Your task to perform on an android device: Clear all items from cart on newegg. Add dell alienware to the cart on newegg Image 0: 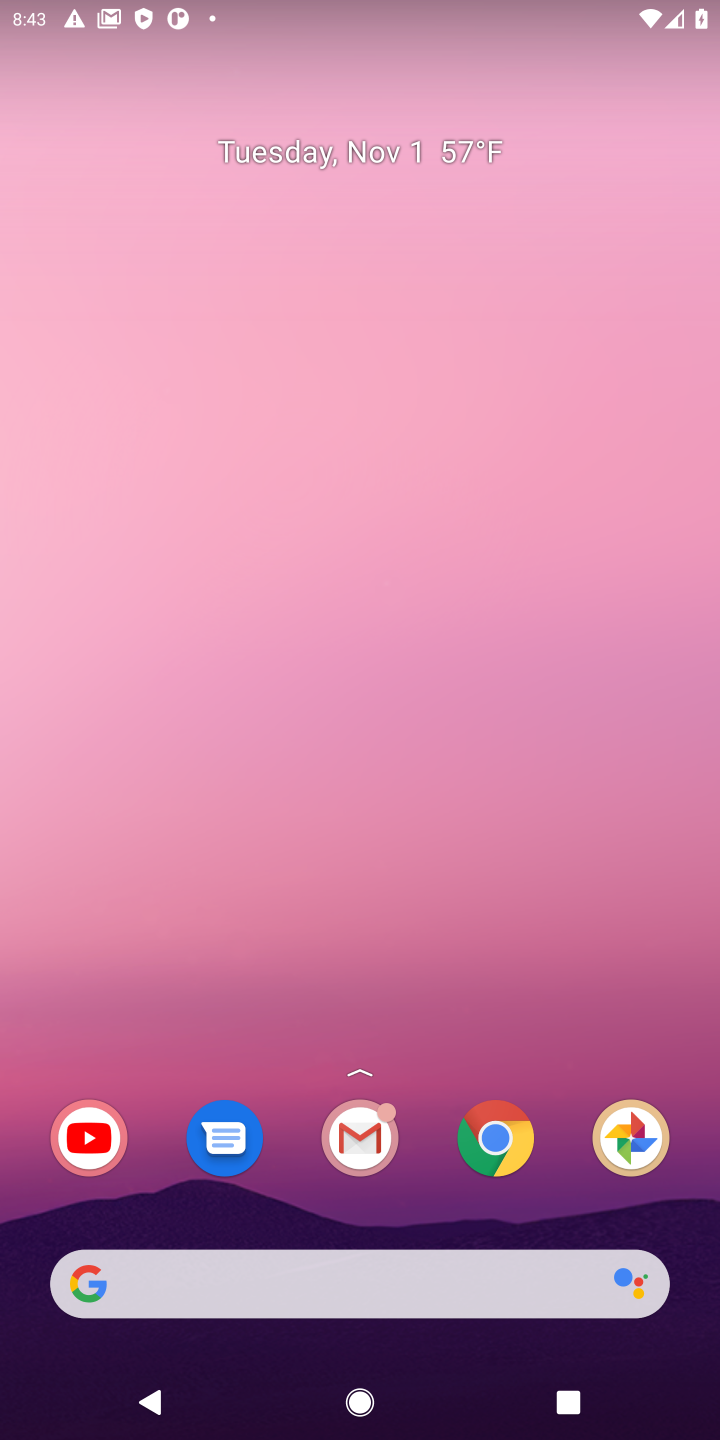
Step 0: click (498, 1152)
Your task to perform on an android device: Clear all items from cart on newegg. Add dell alienware to the cart on newegg Image 1: 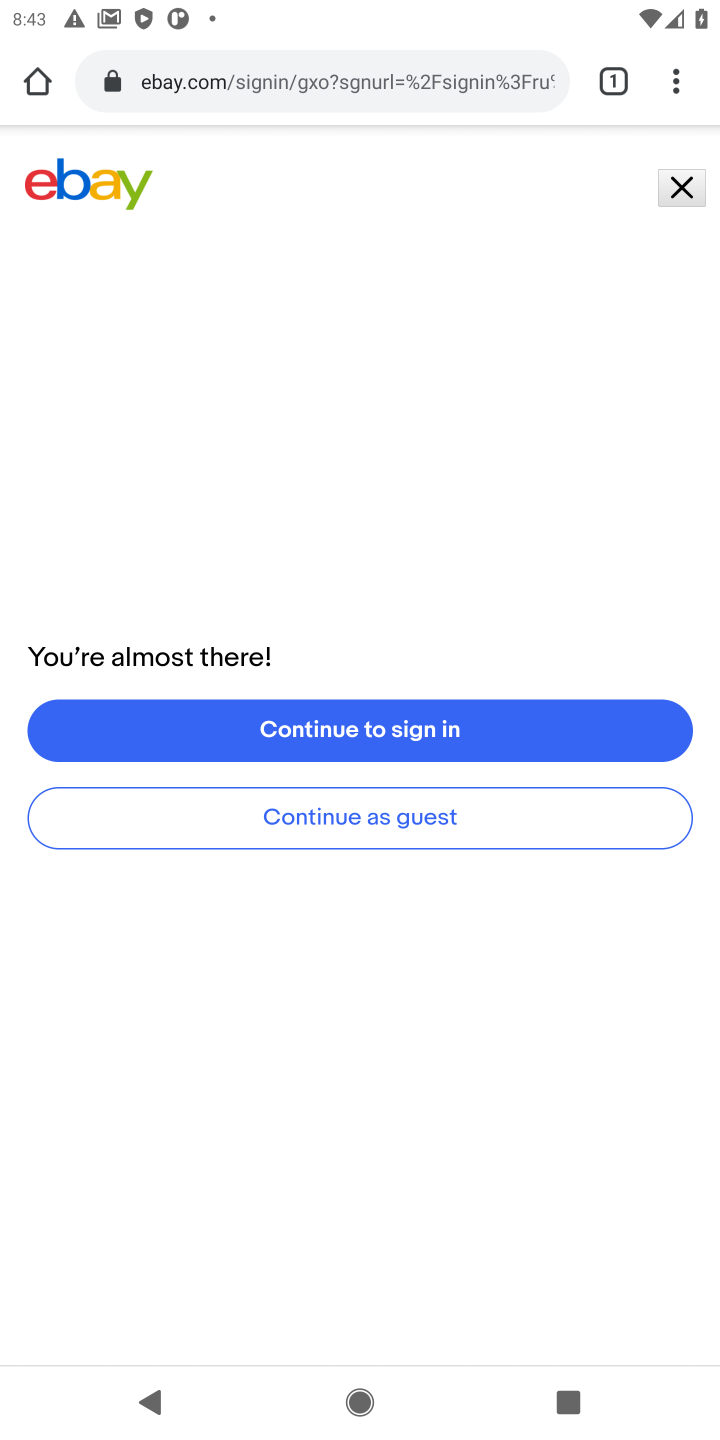
Step 1: click (222, 90)
Your task to perform on an android device: Clear all items from cart on newegg. Add dell alienware to the cart on newegg Image 2: 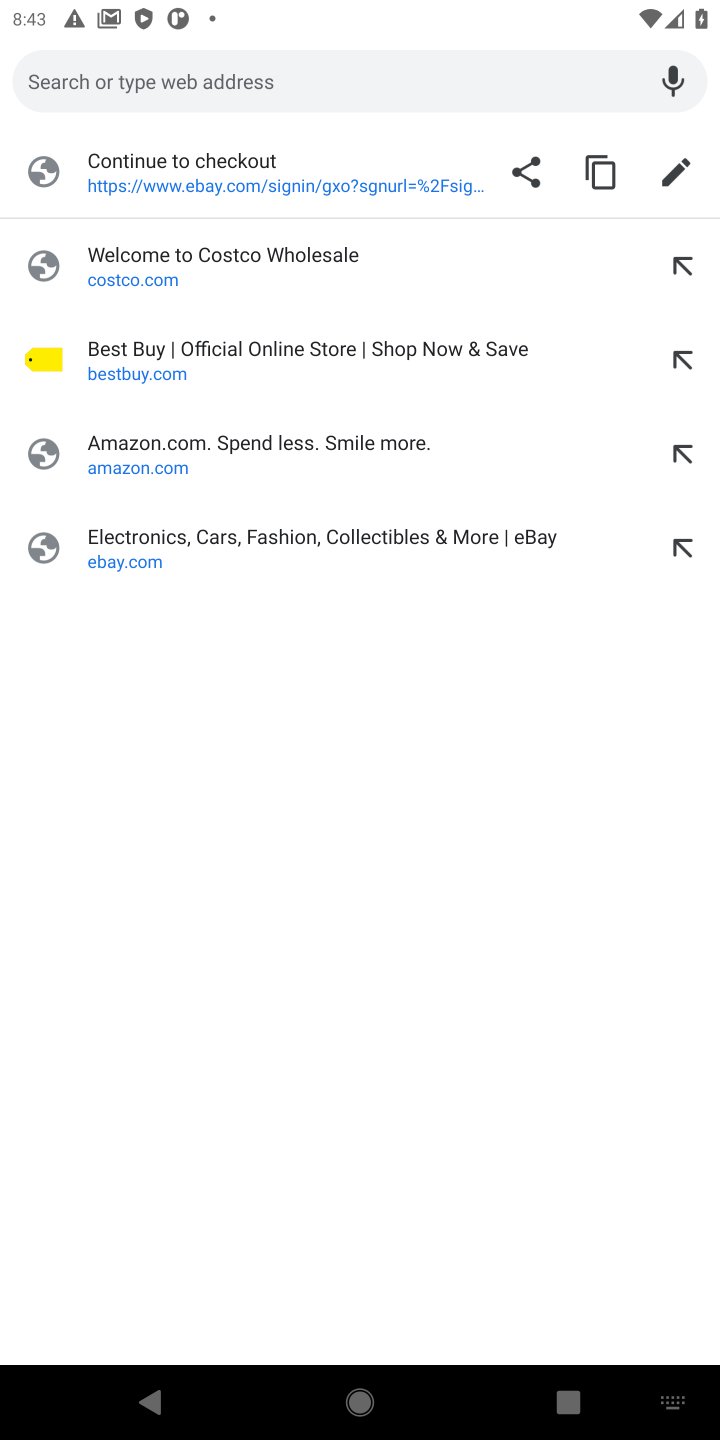
Step 2: type "newegg.com"
Your task to perform on an android device: Clear all items from cart on newegg. Add dell alienware to the cart on newegg Image 3: 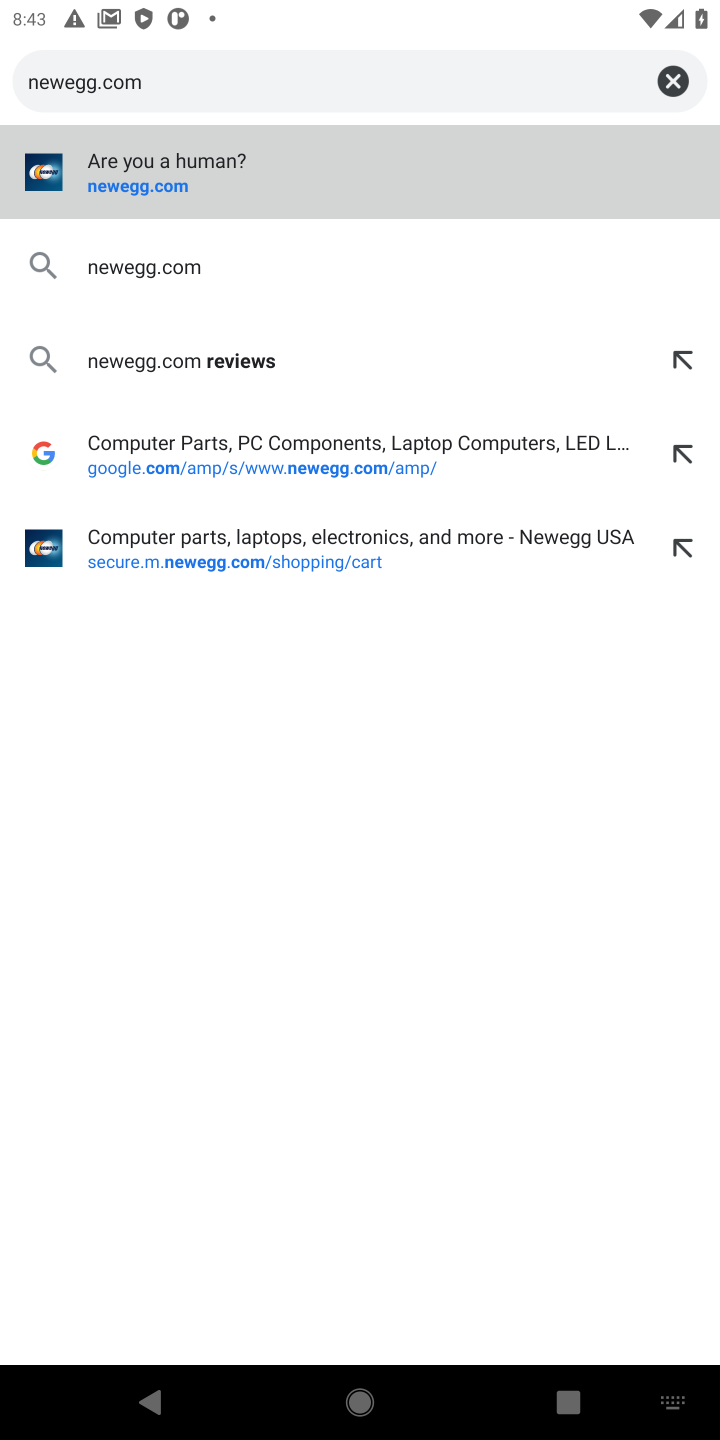
Step 3: click (113, 280)
Your task to perform on an android device: Clear all items from cart on newegg. Add dell alienware to the cart on newegg Image 4: 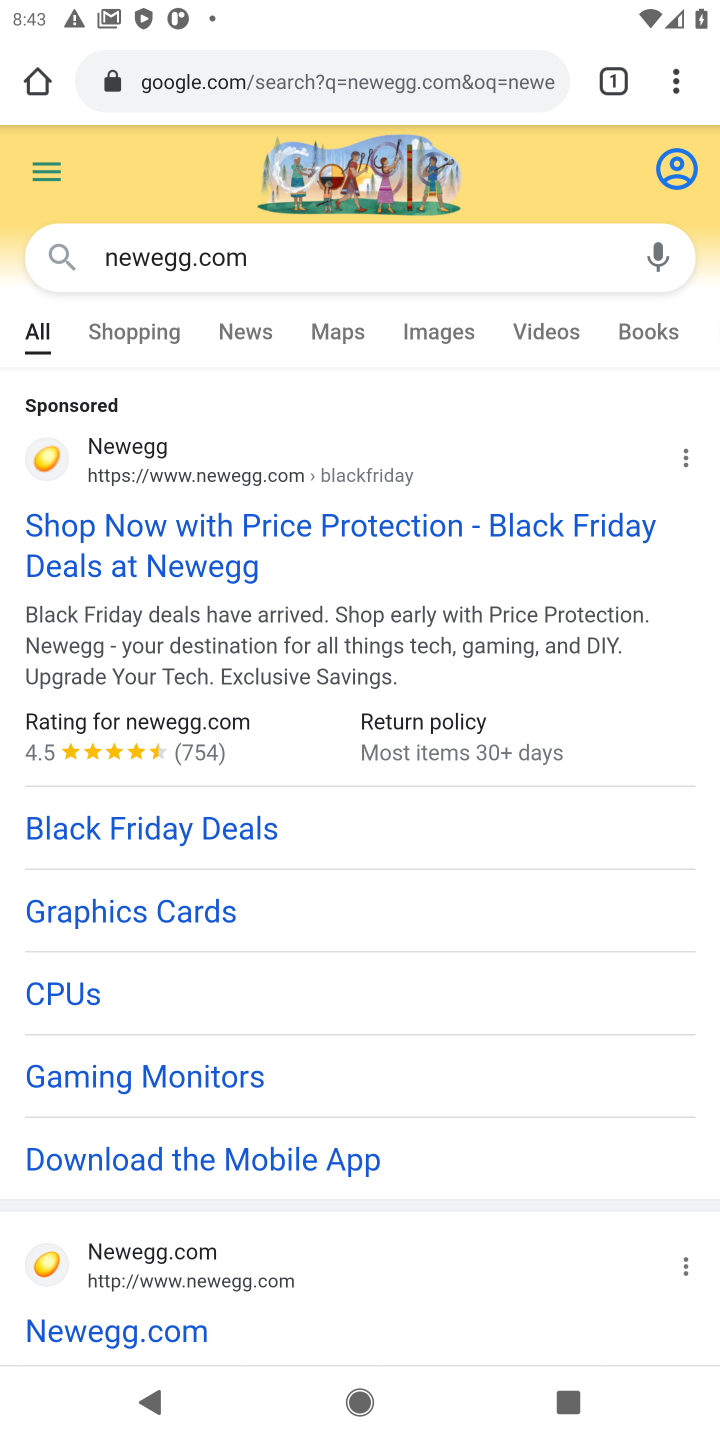
Step 4: drag from (243, 582) to (243, 436)
Your task to perform on an android device: Clear all items from cart on newegg. Add dell alienware to the cart on newegg Image 5: 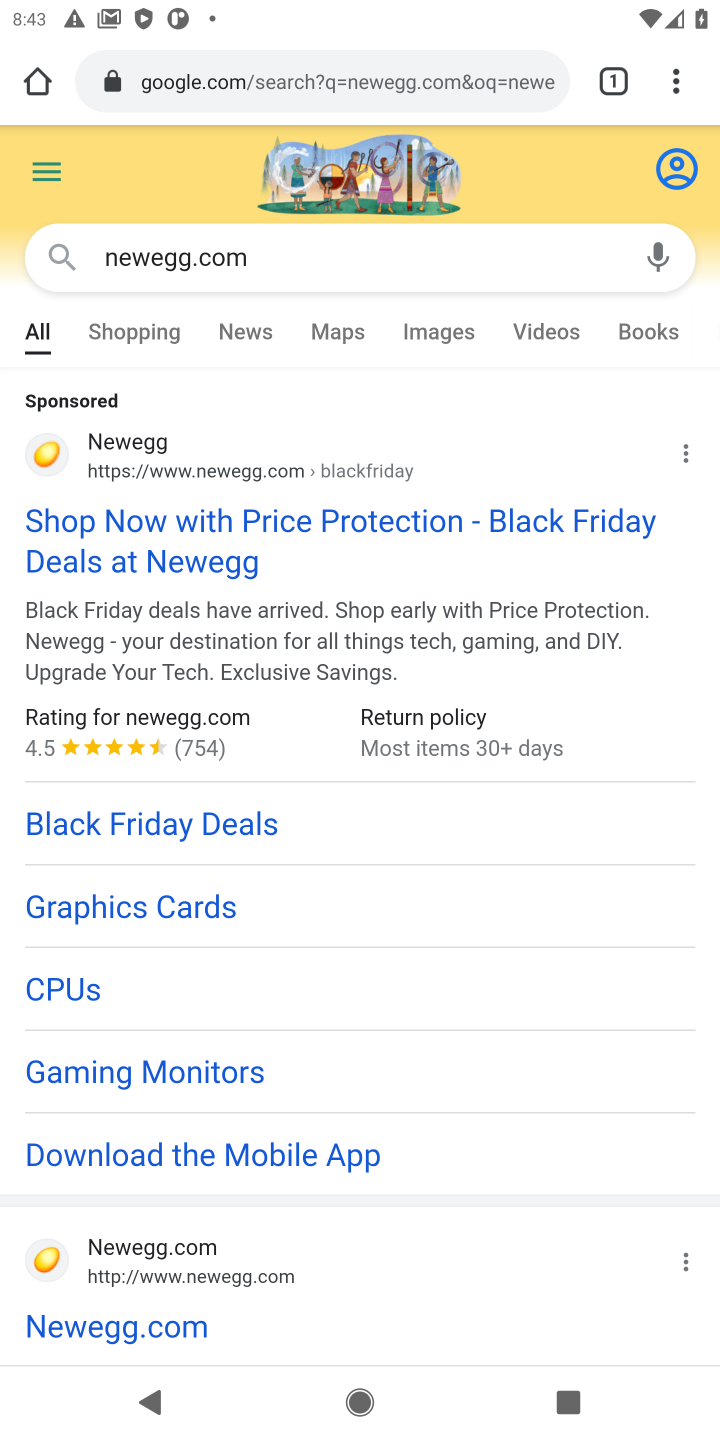
Step 5: drag from (326, 1236) to (367, 569)
Your task to perform on an android device: Clear all items from cart on newegg. Add dell alienware to the cart on newegg Image 6: 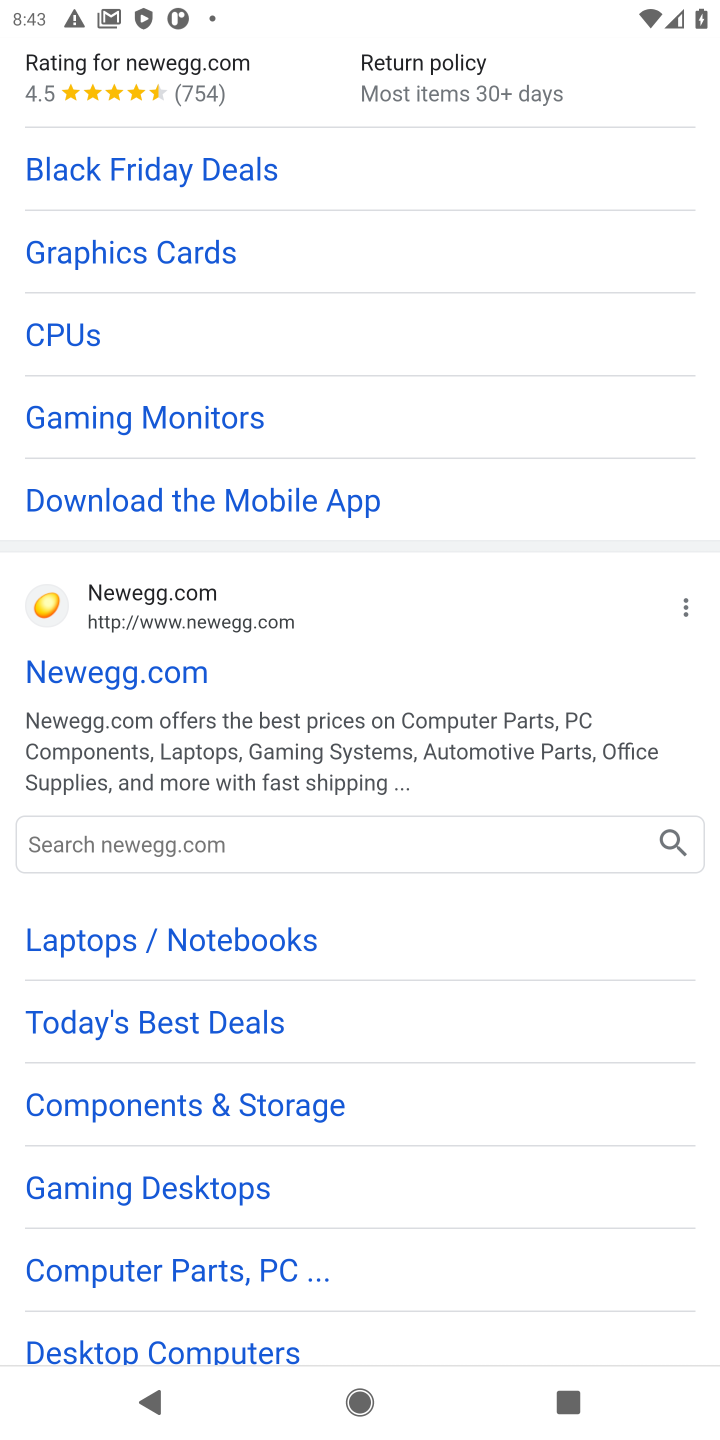
Step 6: click (84, 814)
Your task to perform on an android device: Clear all items from cart on newegg. Add dell alienware to the cart on newegg Image 7: 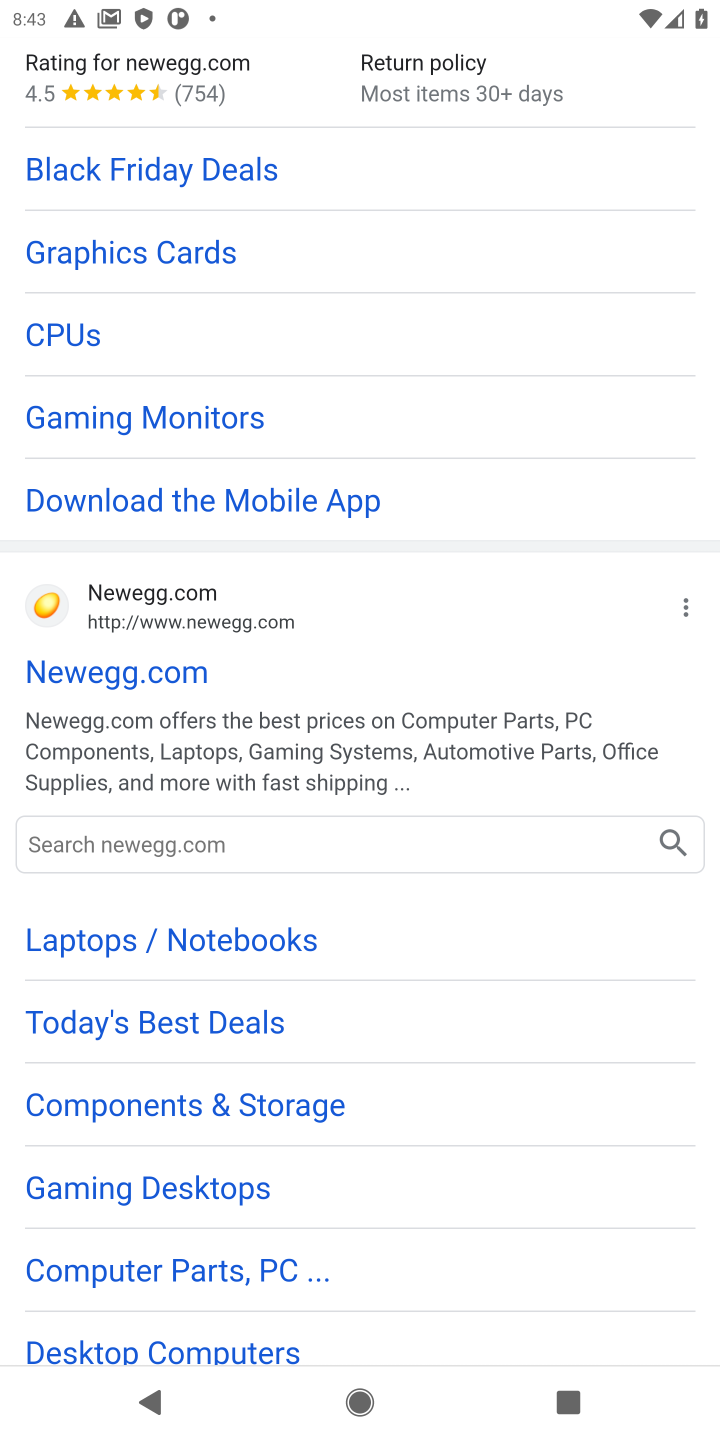
Step 7: click (124, 641)
Your task to perform on an android device: Clear all items from cart on newegg. Add dell alienware to the cart on newegg Image 8: 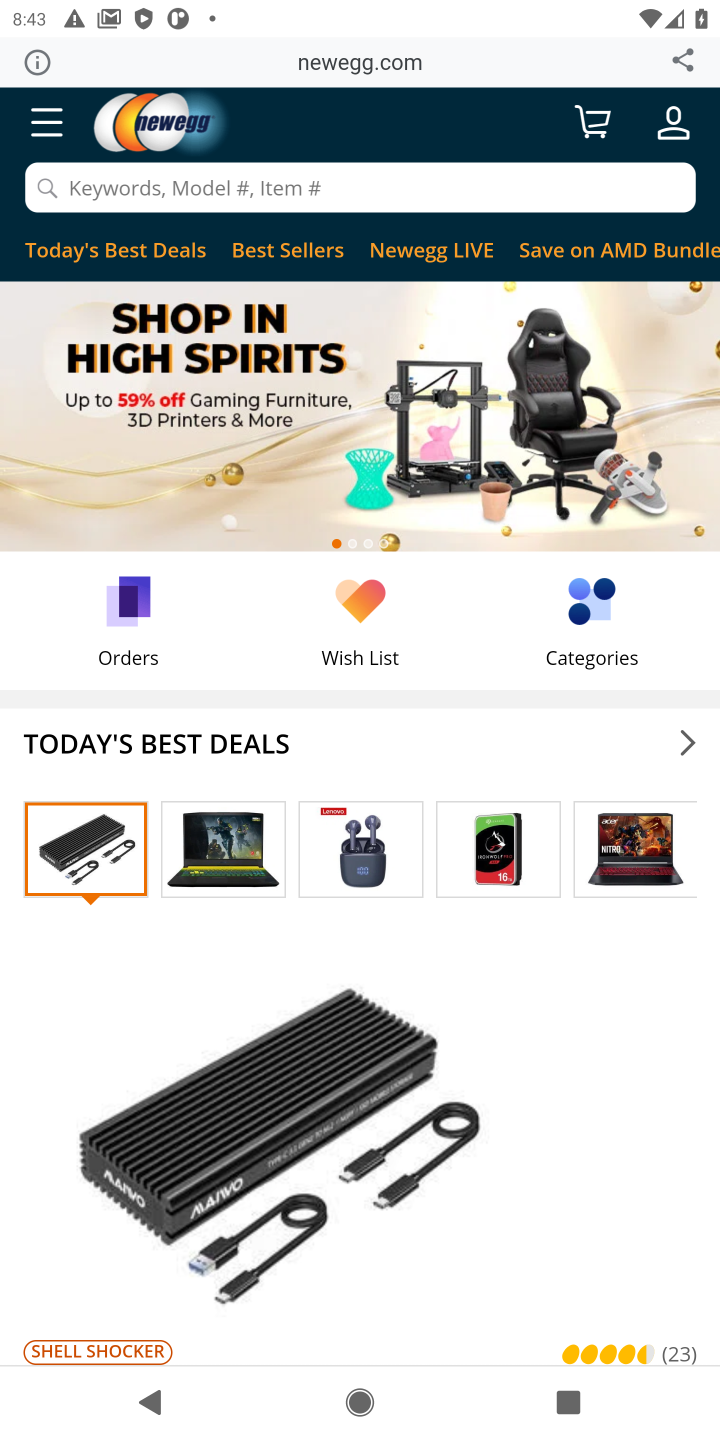
Step 8: click (601, 132)
Your task to perform on an android device: Clear all items from cart on newegg. Add dell alienware to the cart on newegg Image 9: 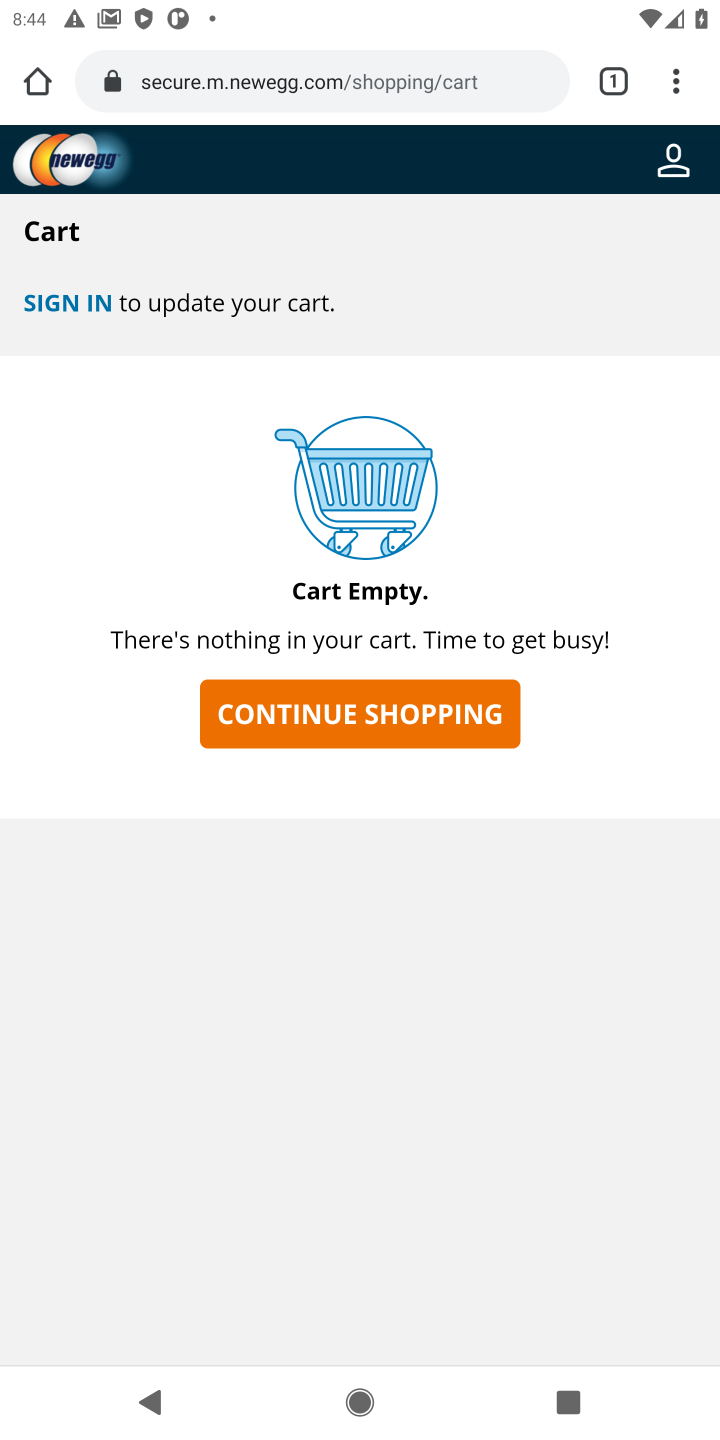
Step 9: press back button
Your task to perform on an android device: Clear all items from cart on newegg. Add dell alienware to the cart on newegg Image 10: 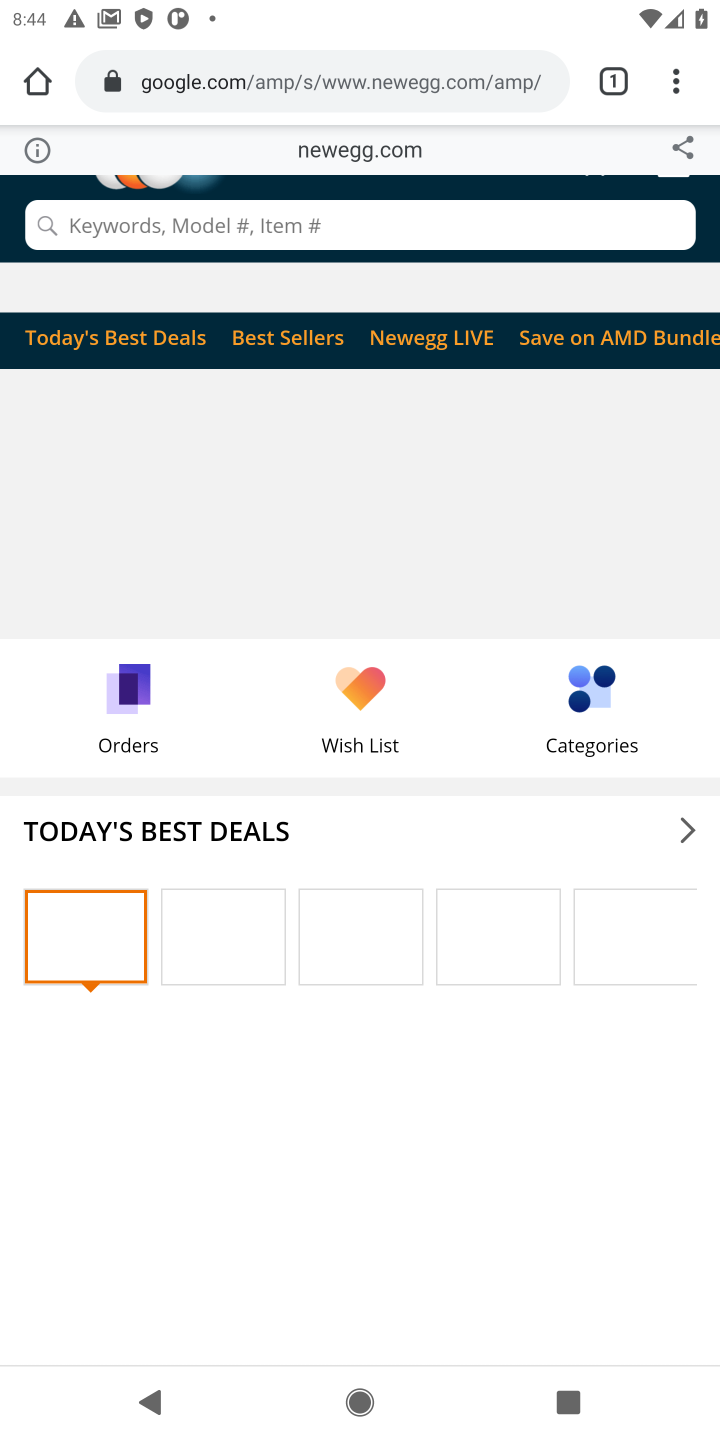
Step 10: click (279, 227)
Your task to perform on an android device: Clear all items from cart on newegg. Add dell alienware to the cart on newegg Image 11: 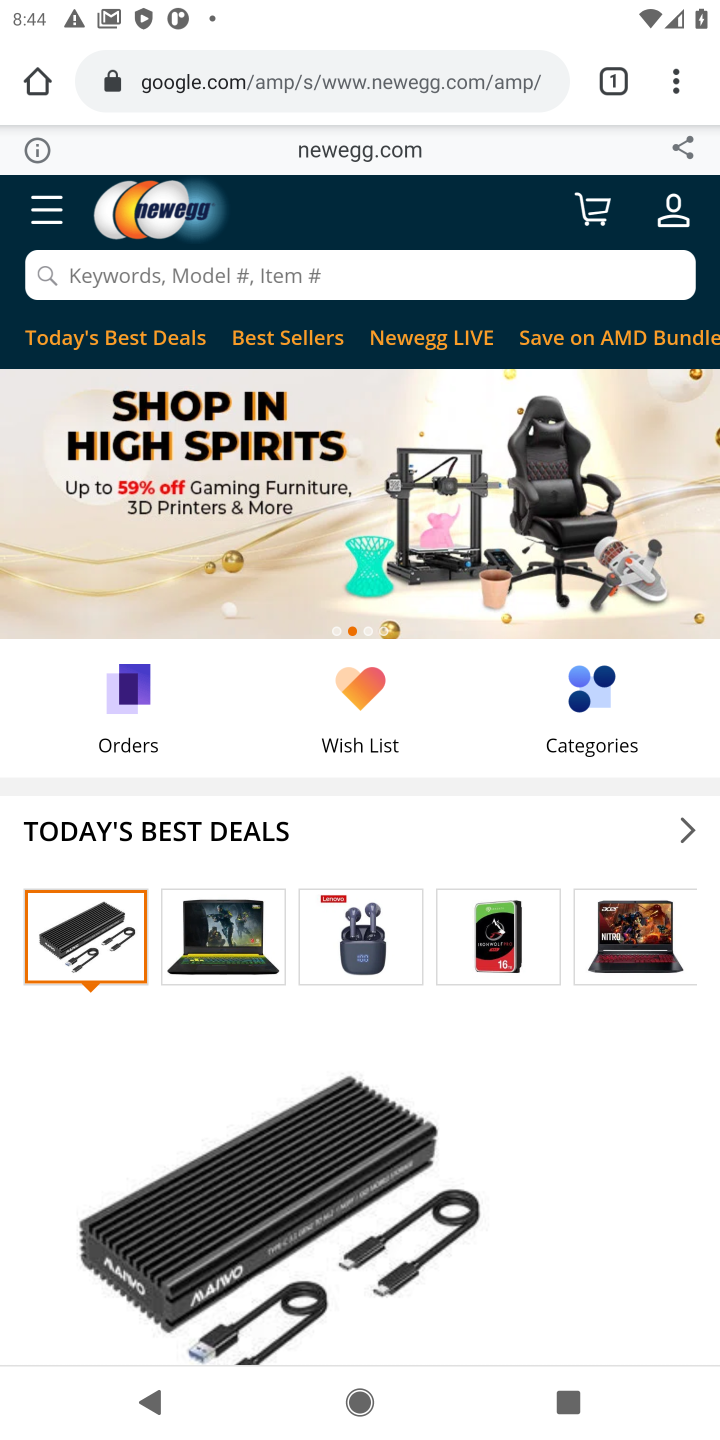
Step 11: click (123, 283)
Your task to perform on an android device: Clear all items from cart on newegg. Add dell alienware to the cart on newegg Image 12: 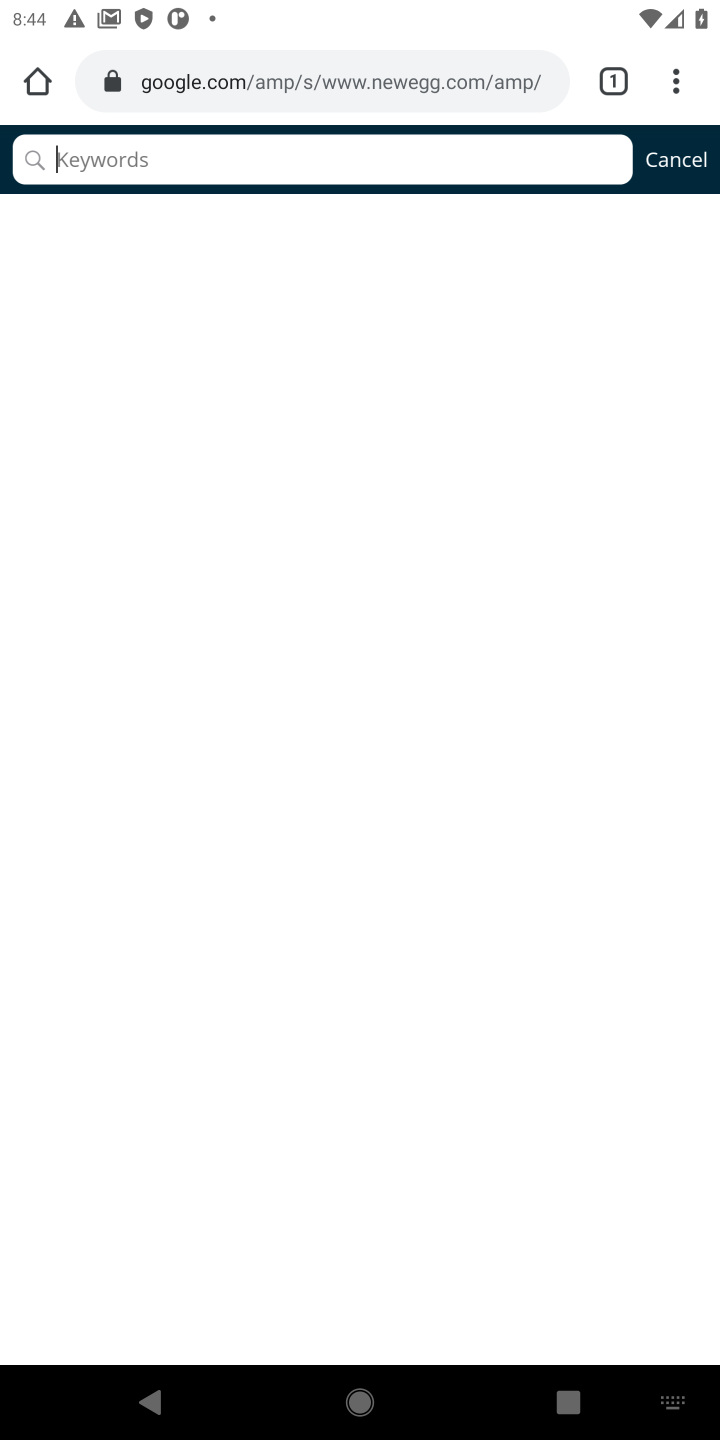
Step 12: type " dell alienware"
Your task to perform on an android device: Clear all items from cart on newegg. Add dell alienware to the cart on newegg Image 13: 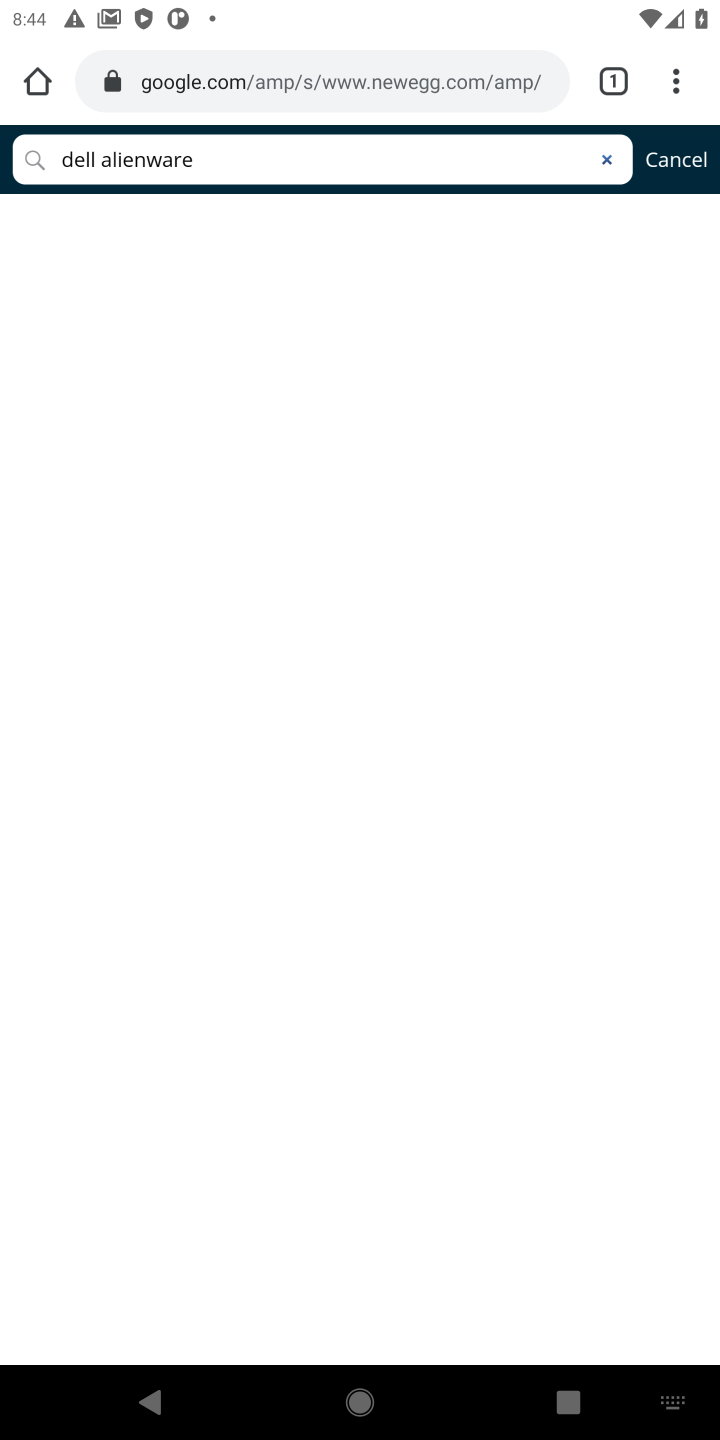
Step 13: click (43, 164)
Your task to perform on an android device: Clear all items from cart on newegg. Add dell alienware to the cart on newegg Image 14: 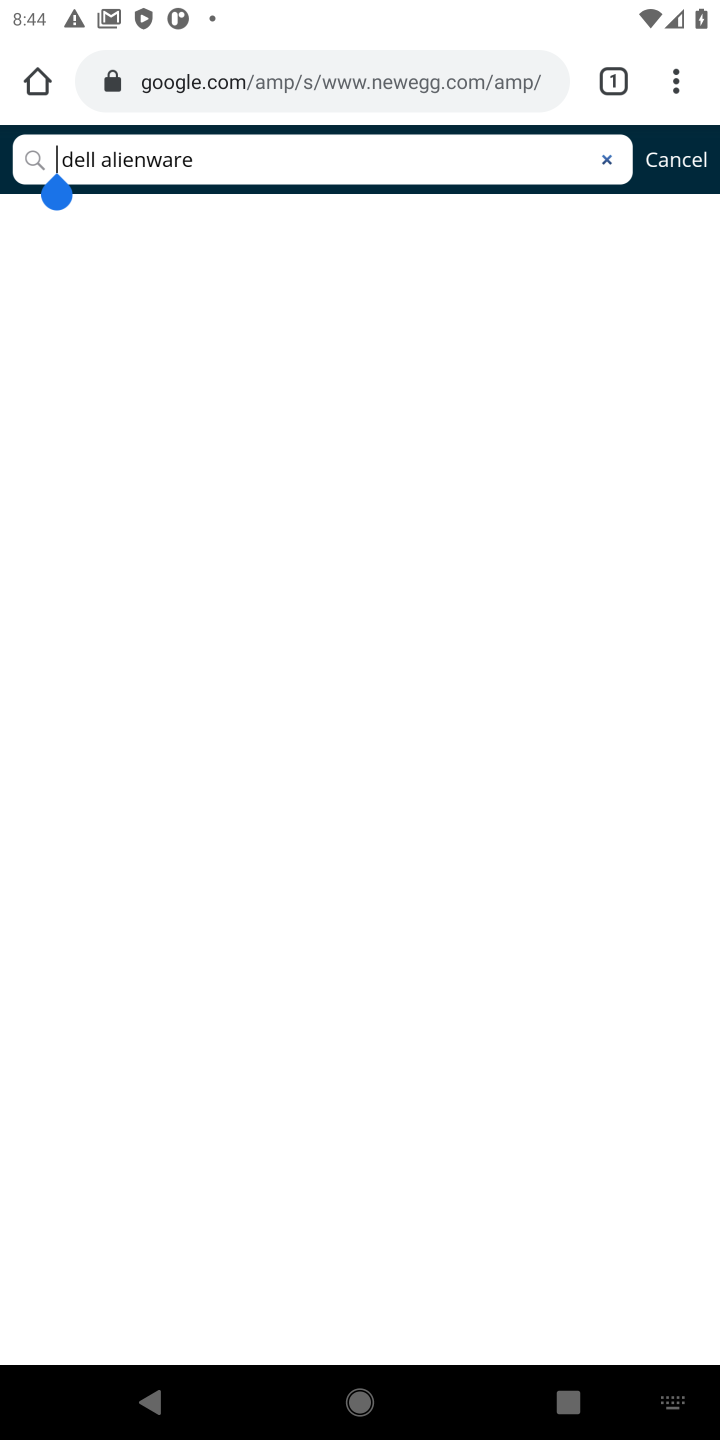
Step 14: task complete